Your task to perform on an android device: Open sound settings Image 0: 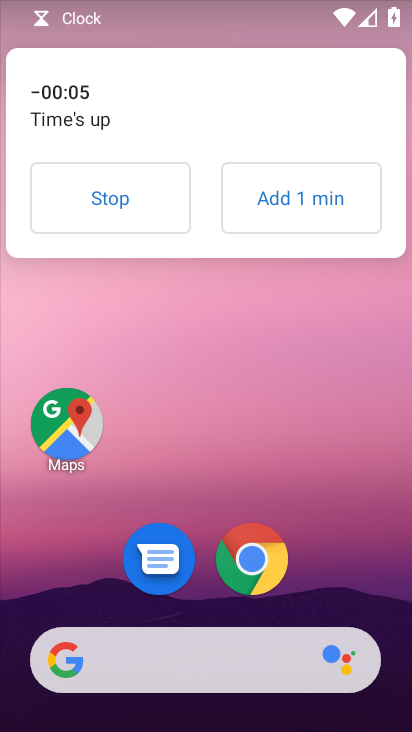
Step 0: drag from (211, 718) to (217, 50)
Your task to perform on an android device: Open sound settings Image 1: 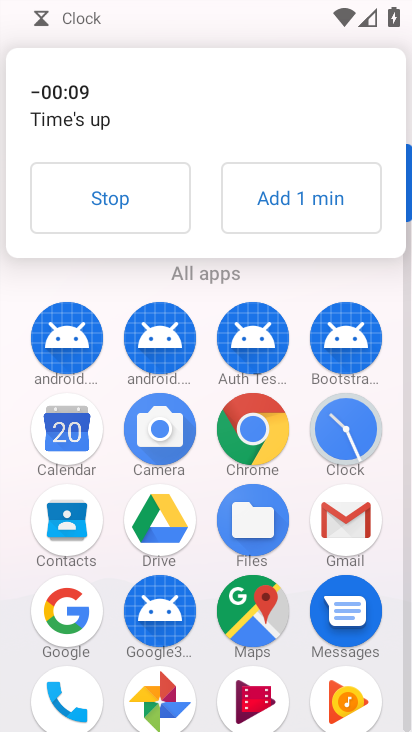
Step 1: drag from (203, 610) to (204, 220)
Your task to perform on an android device: Open sound settings Image 2: 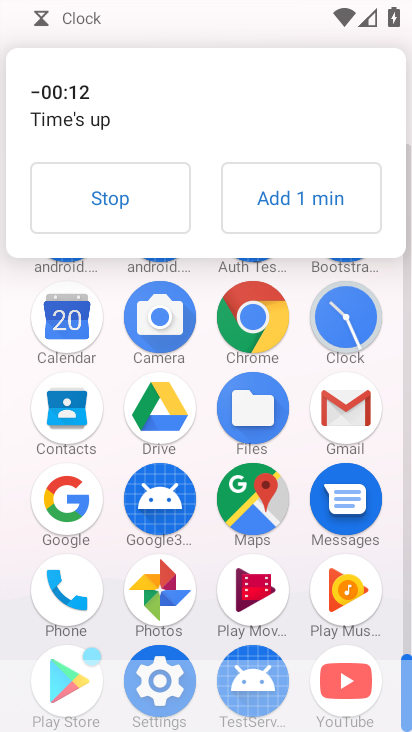
Step 2: click (156, 675)
Your task to perform on an android device: Open sound settings Image 3: 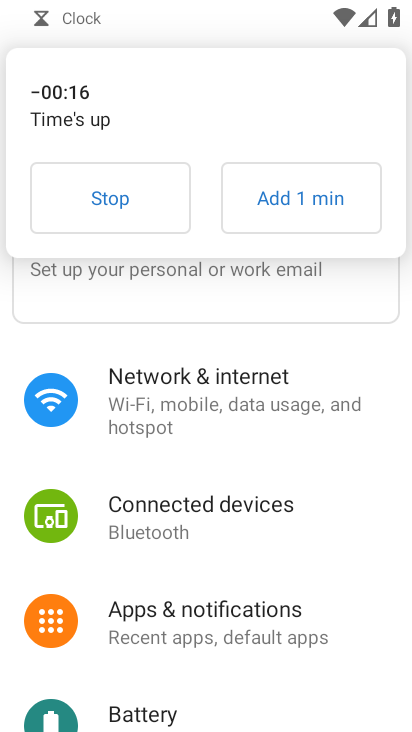
Step 3: drag from (202, 687) to (188, 377)
Your task to perform on an android device: Open sound settings Image 4: 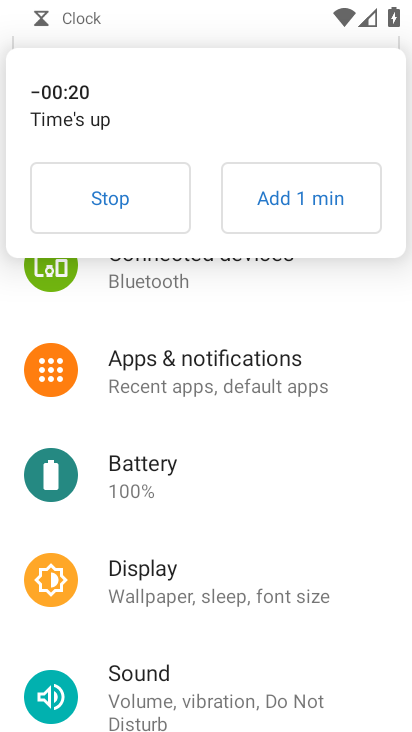
Step 4: click (149, 676)
Your task to perform on an android device: Open sound settings Image 5: 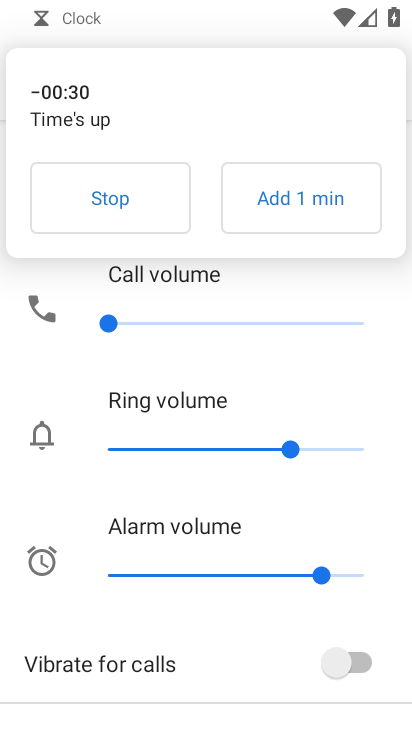
Step 5: task complete